Your task to perform on an android device: allow notifications from all sites in the chrome app Image 0: 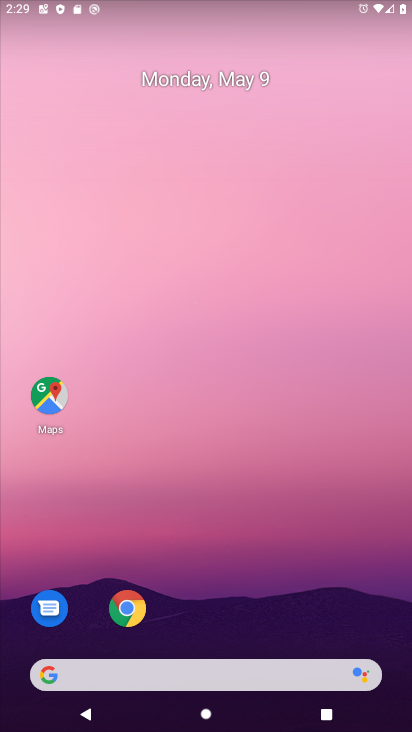
Step 0: click (127, 607)
Your task to perform on an android device: allow notifications from all sites in the chrome app Image 1: 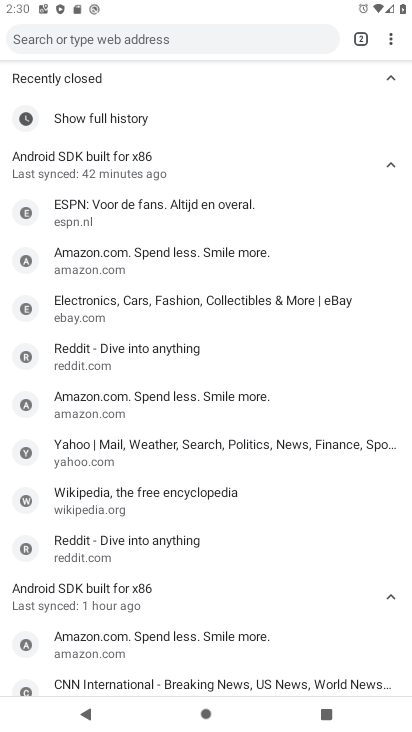
Step 1: click (398, 39)
Your task to perform on an android device: allow notifications from all sites in the chrome app Image 2: 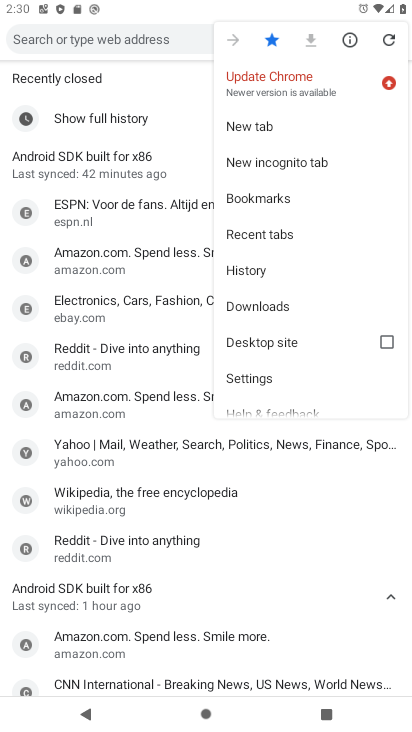
Step 2: click (269, 380)
Your task to perform on an android device: allow notifications from all sites in the chrome app Image 3: 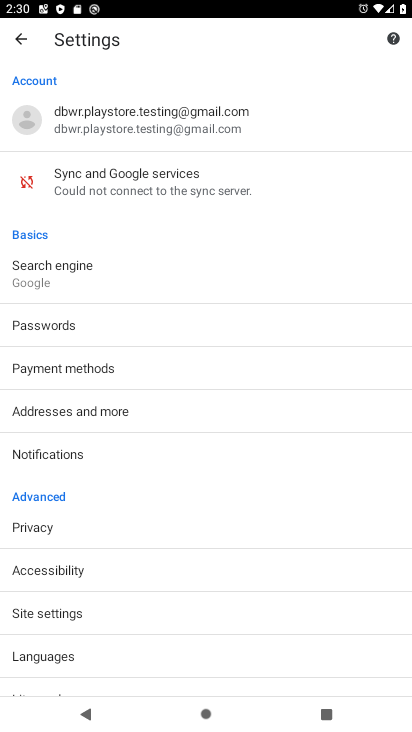
Step 3: click (126, 470)
Your task to perform on an android device: allow notifications from all sites in the chrome app Image 4: 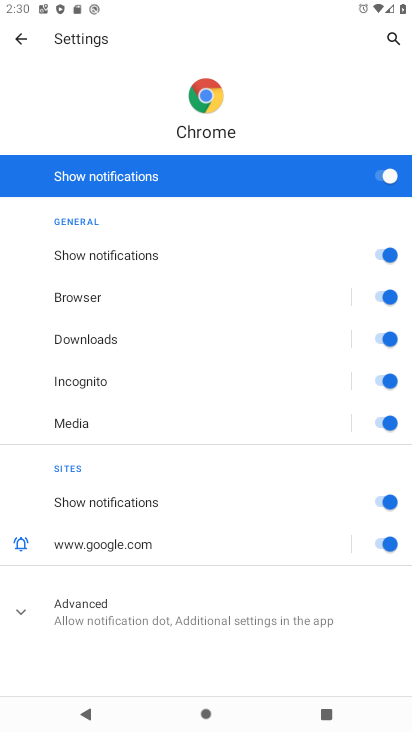
Step 4: click (118, 631)
Your task to perform on an android device: allow notifications from all sites in the chrome app Image 5: 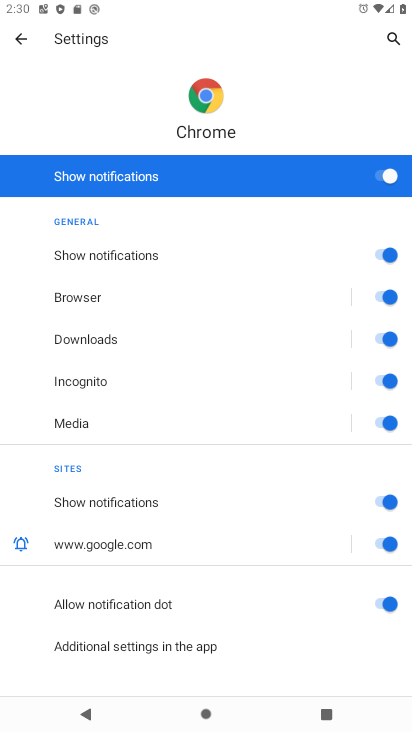
Step 5: task complete